Your task to perform on an android device: open wifi settings Image 0: 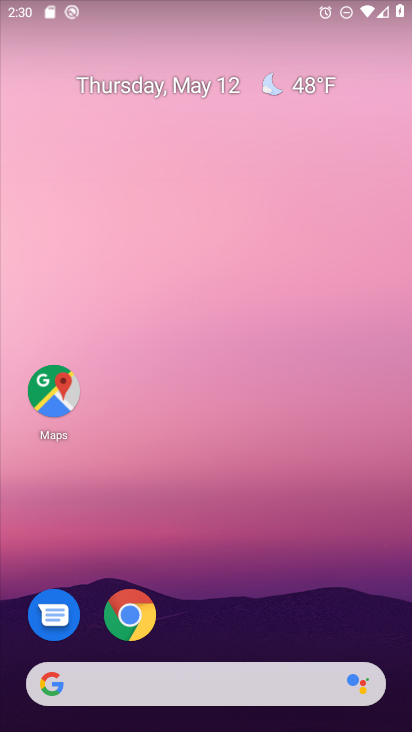
Step 0: drag from (301, 673) to (298, 81)
Your task to perform on an android device: open wifi settings Image 1: 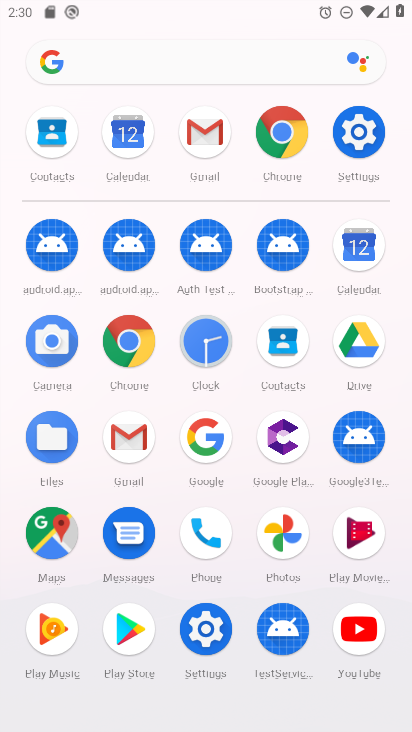
Step 1: click (345, 130)
Your task to perform on an android device: open wifi settings Image 2: 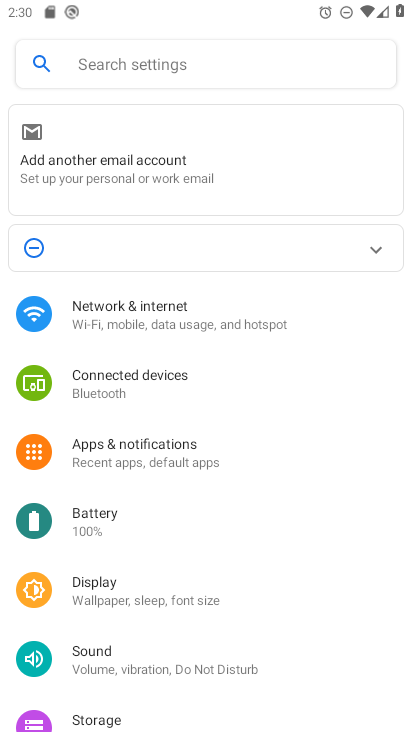
Step 2: click (252, 311)
Your task to perform on an android device: open wifi settings Image 3: 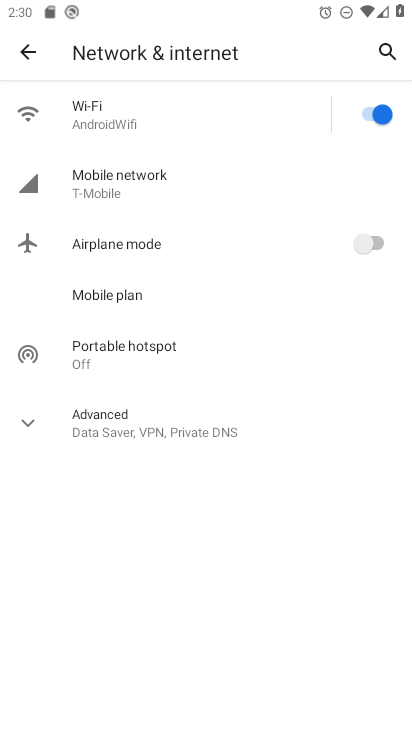
Step 3: click (236, 120)
Your task to perform on an android device: open wifi settings Image 4: 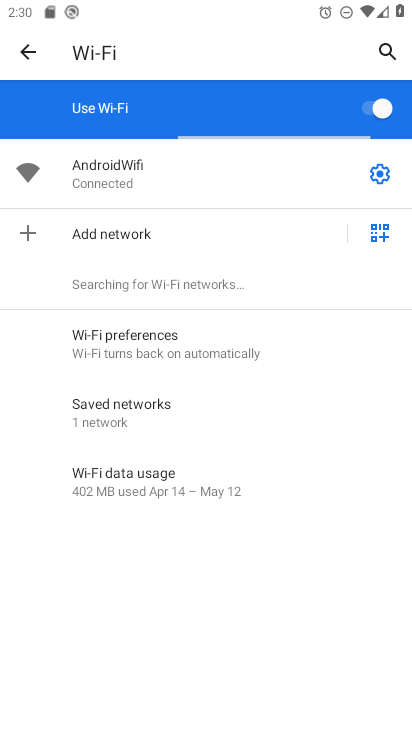
Step 4: task complete